Your task to perform on an android device: Open calendar and show me the third week of next month Image 0: 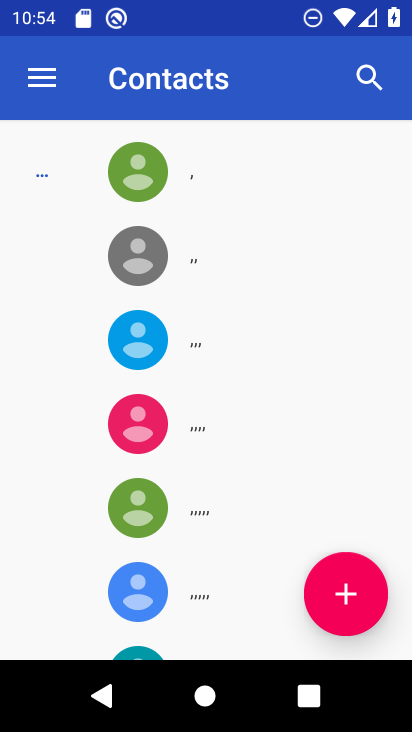
Step 0: press home button
Your task to perform on an android device: Open calendar and show me the third week of next month Image 1: 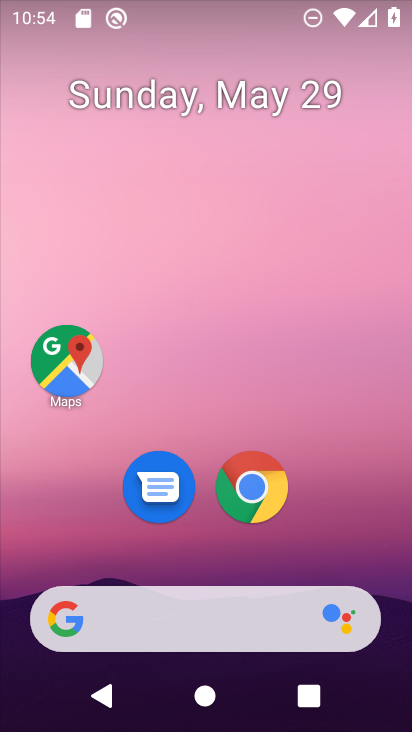
Step 1: drag from (215, 559) to (247, 0)
Your task to perform on an android device: Open calendar and show me the third week of next month Image 2: 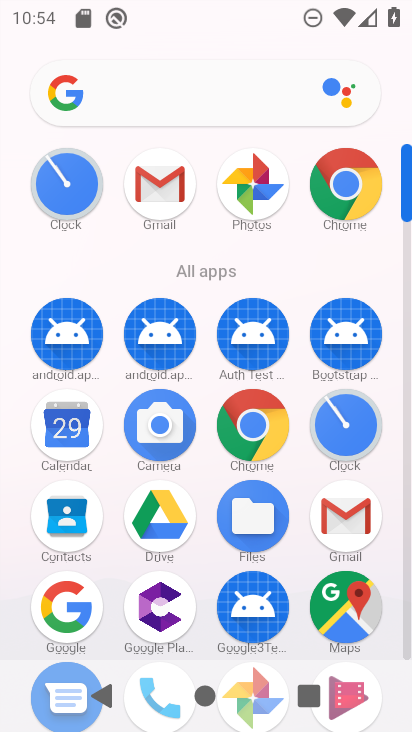
Step 2: click (69, 431)
Your task to perform on an android device: Open calendar and show me the third week of next month Image 3: 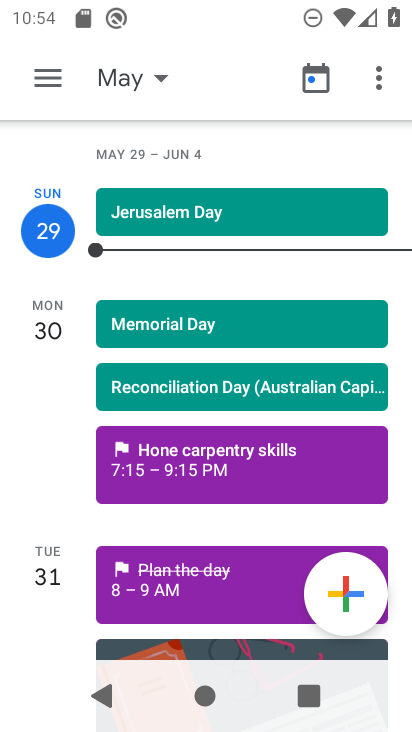
Step 3: click (50, 74)
Your task to perform on an android device: Open calendar and show me the third week of next month Image 4: 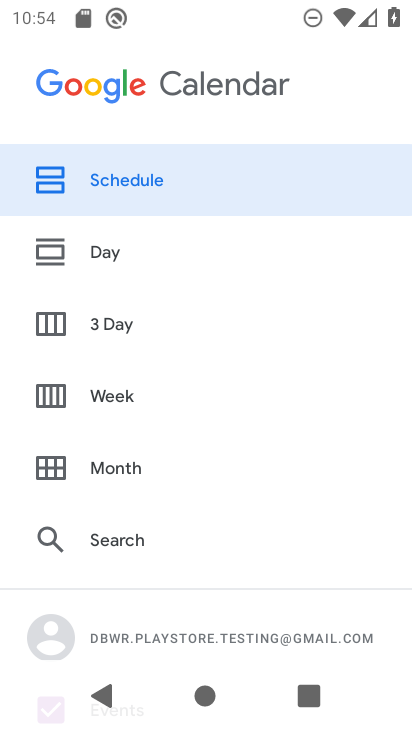
Step 4: click (97, 393)
Your task to perform on an android device: Open calendar and show me the third week of next month Image 5: 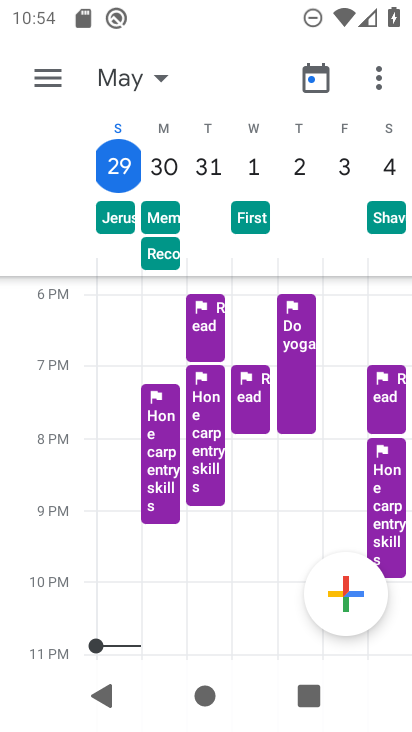
Step 5: click (159, 85)
Your task to perform on an android device: Open calendar and show me the third week of next month Image 6: 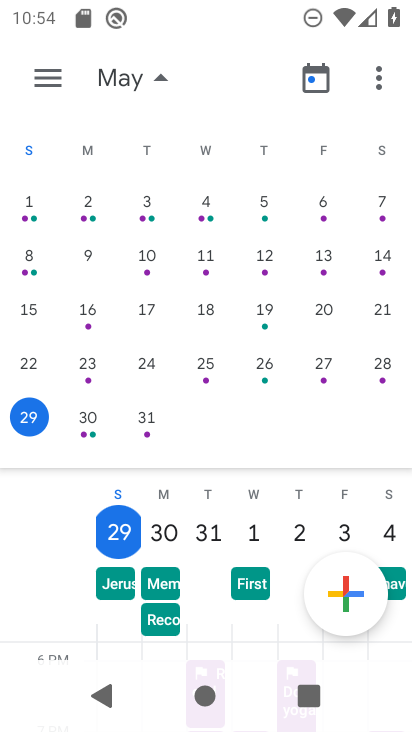
Step 6: drag from (334, 243) to (7, 368)
Your task to perform on an android device: Open calendar and show me the third week of next month Image 7: 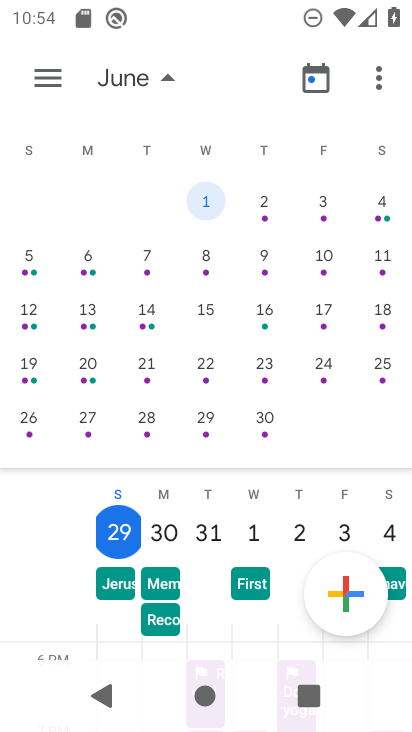
Step 7: click (30, 310)
Your task to perform on an android device: Open calendar and show me the third week of next month Image 8: 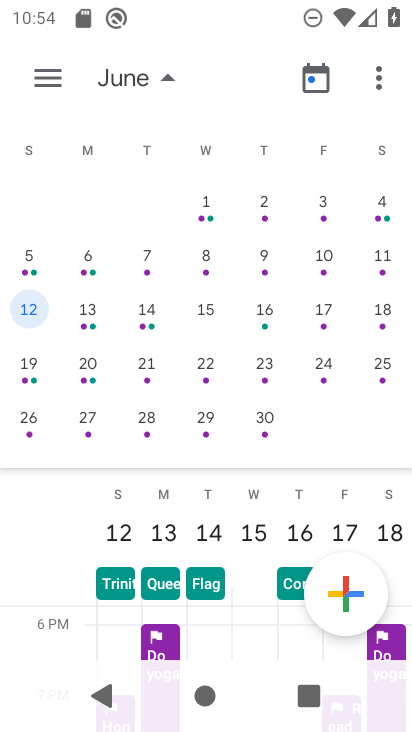
Step 8: click (165, 81)
Your task to perform on an android device: Open calendar and show me the third week of next month Image 9: 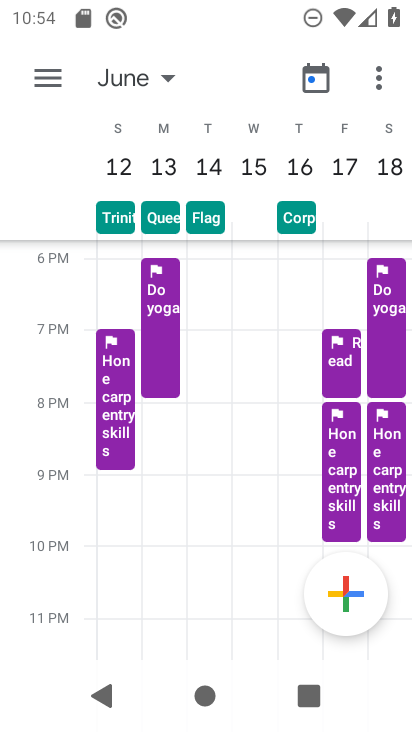
Step 9: click (119, 168)
Your task to perform on an android device: Open calendar and show me the third week of next month Image 10: 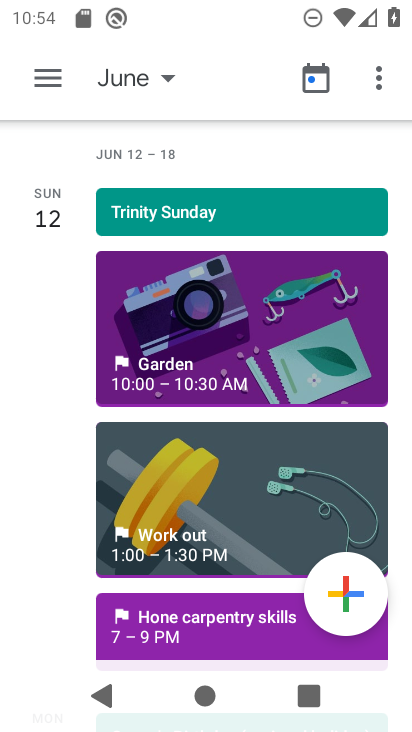
Step 10: task complete